Your task to perform on an android device: change notification settings in the gmail app Image 0: 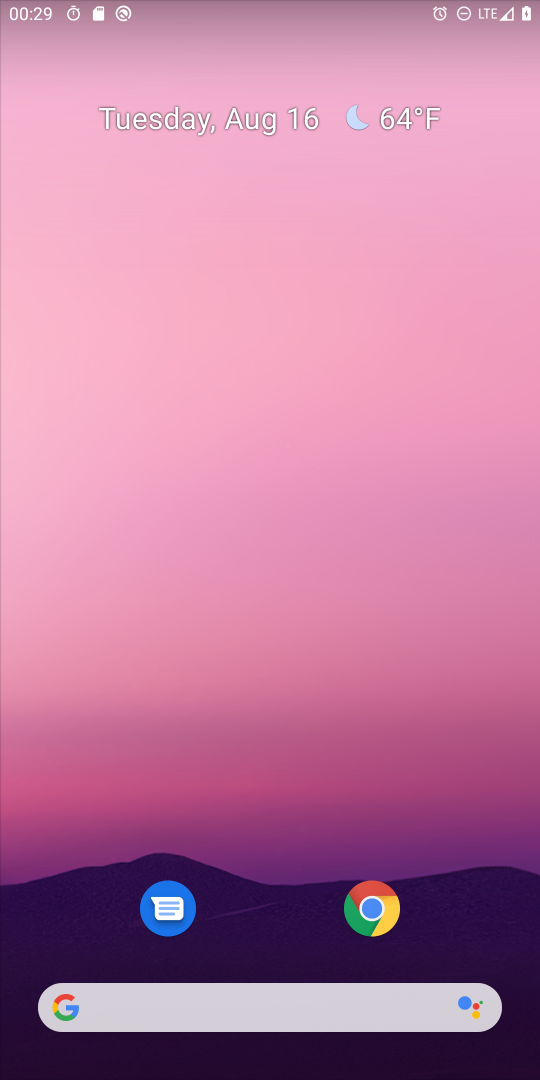
Step 0: click (402, 988)
Your task to perform on an android device: change notification settings in the gmail app Image 1: 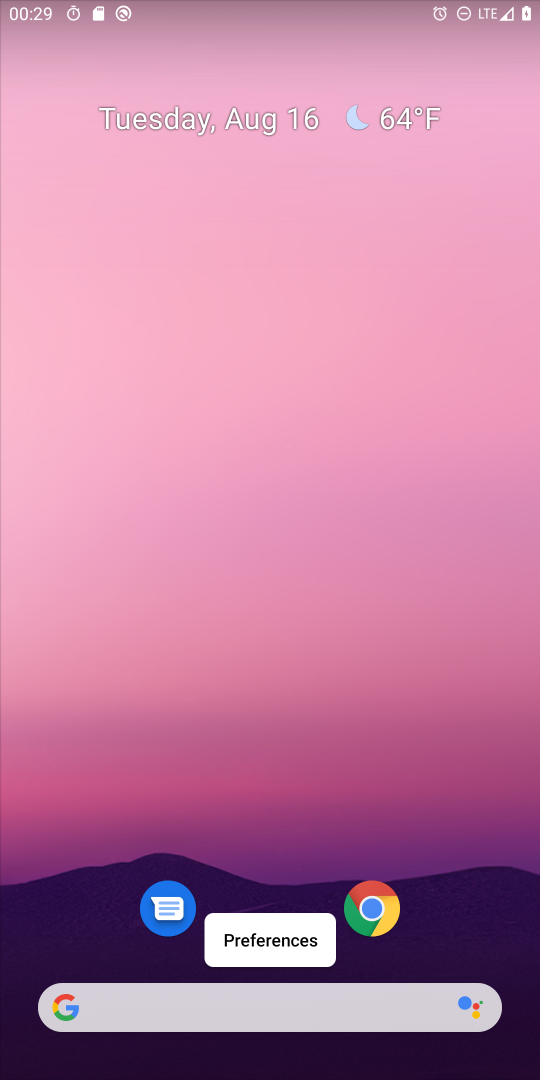
Step 1: drag from (270, 902) to (261, 99)
Your task to perform on an android device: change notification settings in the gmail app Image 2: 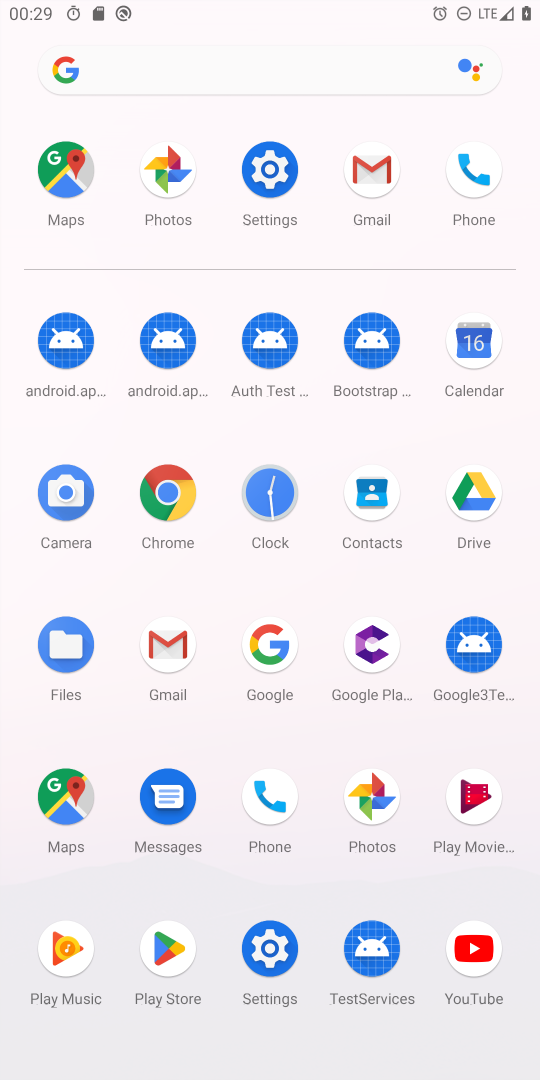
Step 2: click (357, 154)
Your task to perform on an android device: change notification settings in the gmail app Image 3: 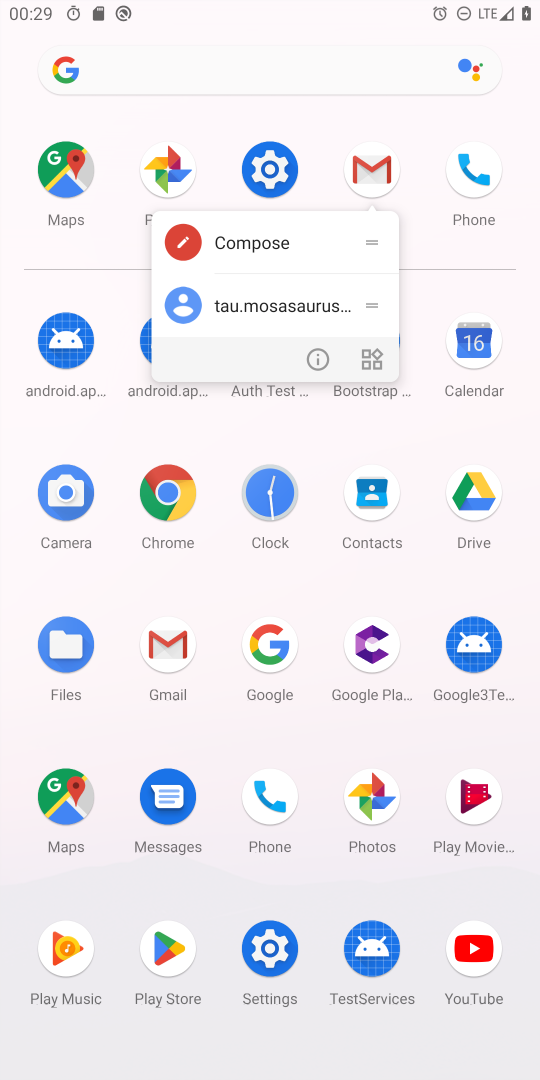
Step 3: click (378, 161)
Your task to perform on an android device: change notification settings in the gmail app Image 4: 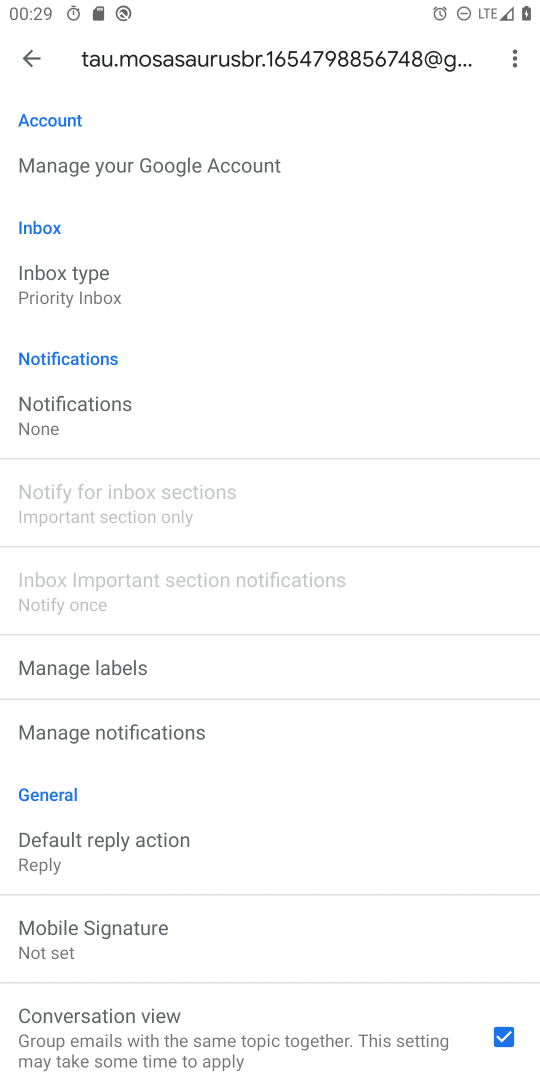
Step 4: click (55, 429)
Your task to perform on an android device: change notification settings in the gmail app Image 5: 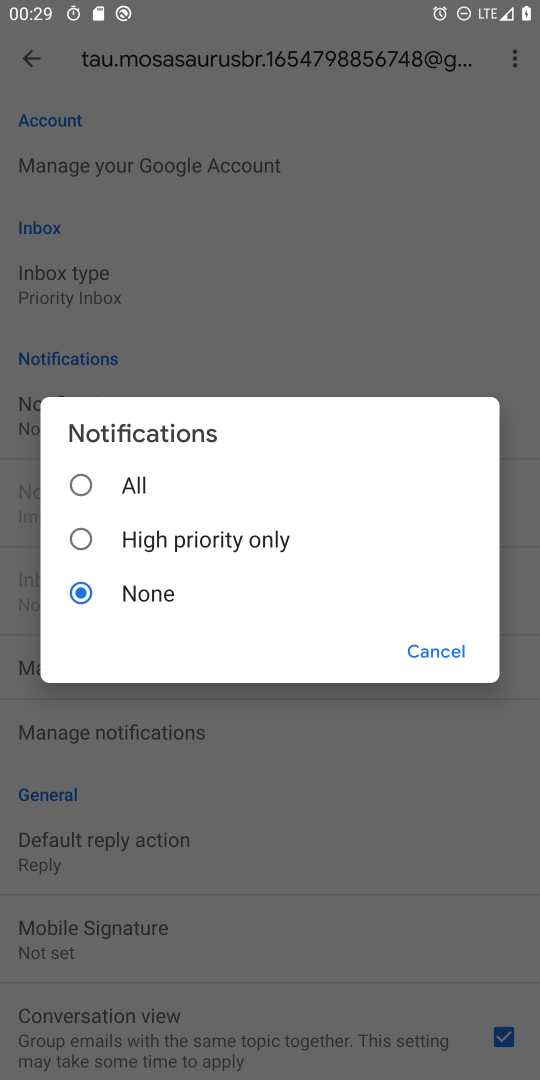
Step 5: click (153, 494)
Your task to perform on an android device: change notification settings in the gmail app Image 6: 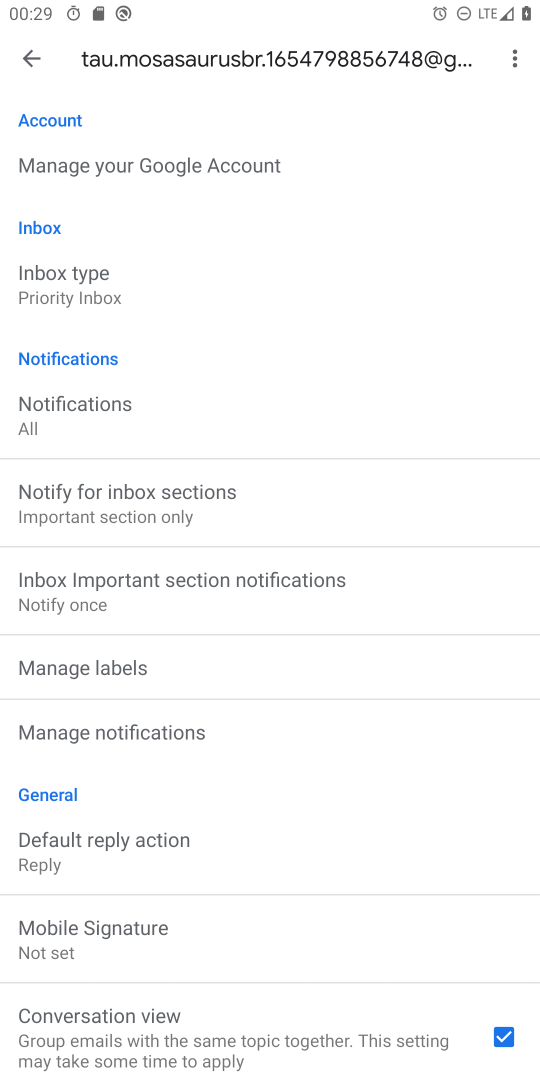
Step 6: task complete